Your task to perform on an android device: Is it going to rain tomorrow? Image 0: 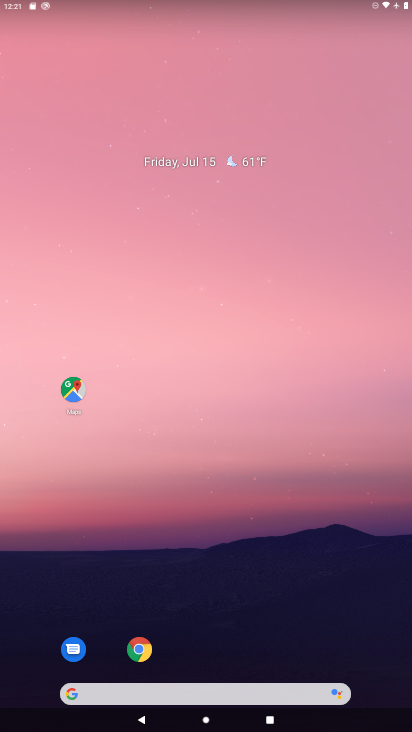
Step 0: click (163, 693)
Your task to perform on an android device: Is it going to rain tomorrow? Image 1: 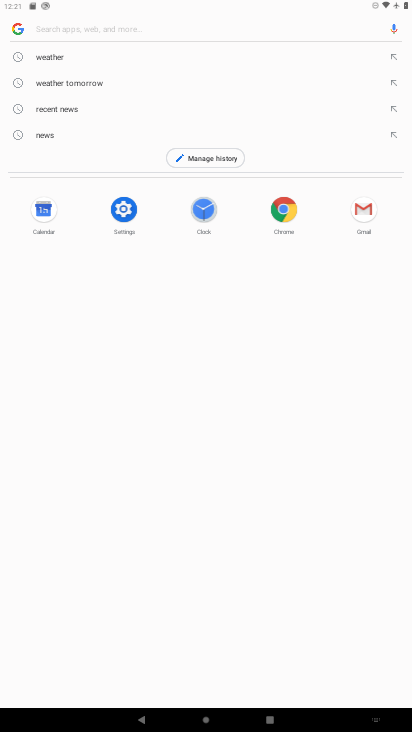
Step 1: type "Is it going to rain tomorrow?"
Your task to perform on an android device: Is it going to rain tomorrow? Image 2: 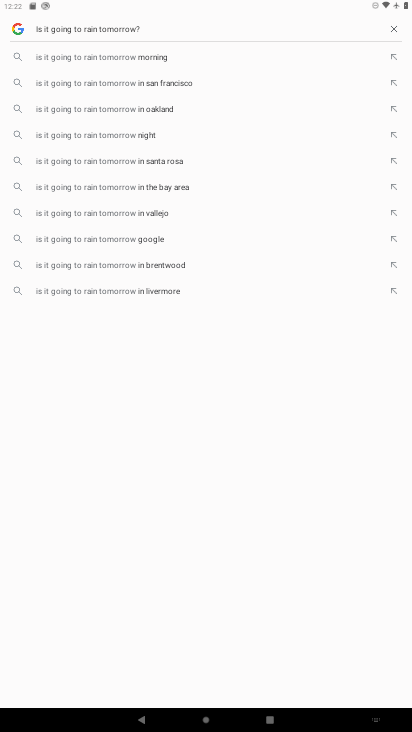
Step 2: click (151, 27)
Your task to perform on an android device: Is it going to rain tomorrow? Image 3: 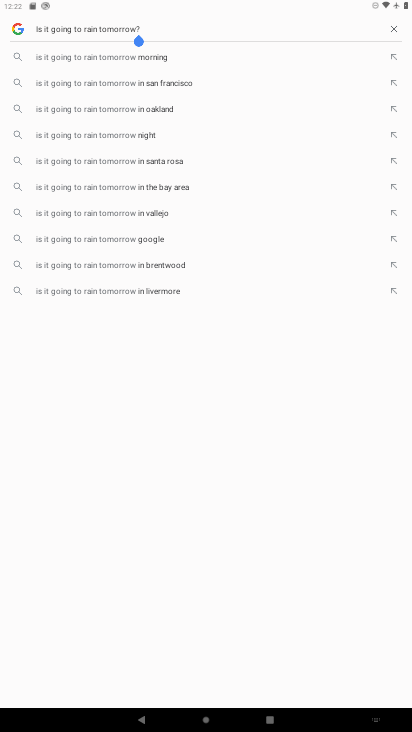
Step 3: click (151, 27)
Your task to perform on an android device: Is it going to rain tomorrow? Image 4: 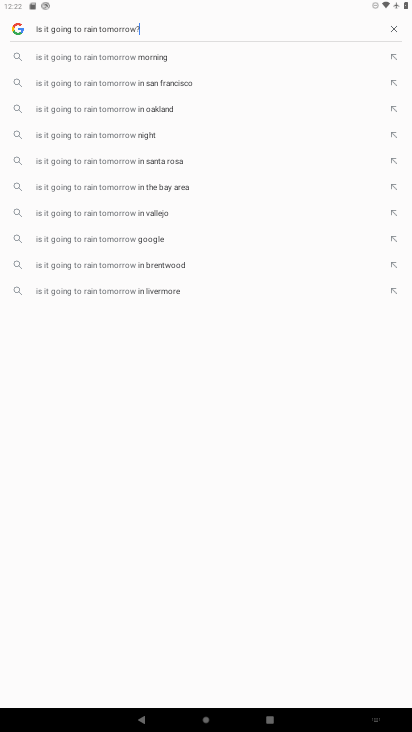
Step 4: click (138, 57)
Your task to perform on an android device: Is it going to rain tomorrow? Image 5: 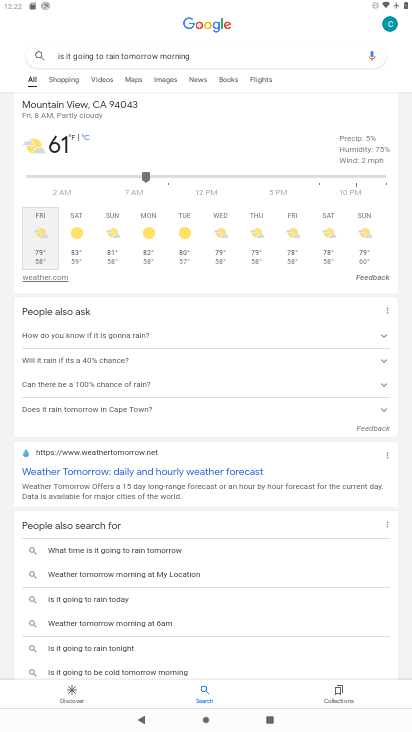
Step 5: task complete